Your task to perform on an android device: turn notification dots off Image 0: 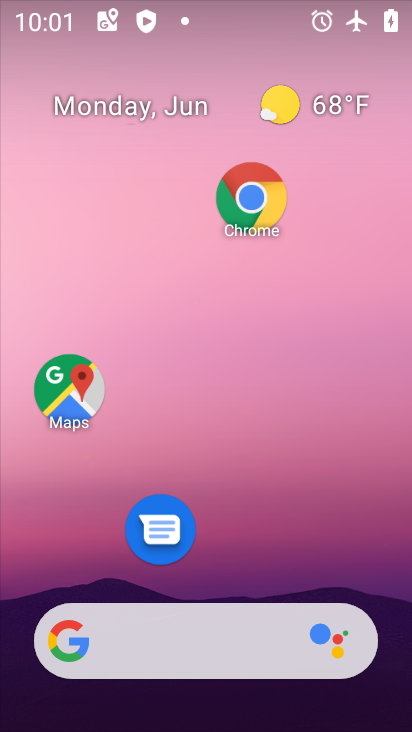
Step 0: drag from (215, 563) to (190, 135)
Your task to perform on an android device: turn notification dots off Image 1: 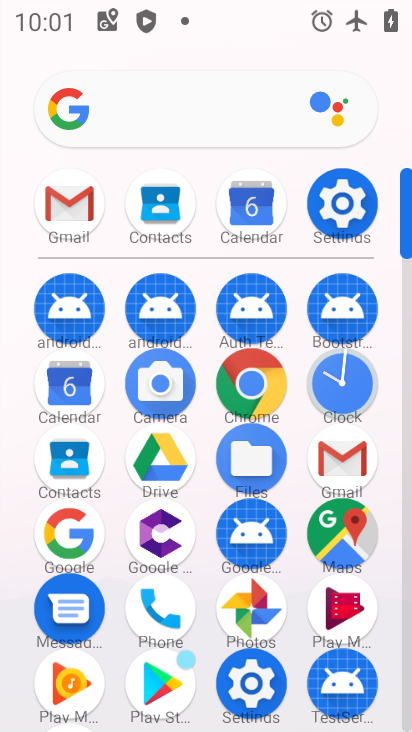
Step 1: click (330, 209)
Your task to perform on an android device: turn notification dots off Image 2: 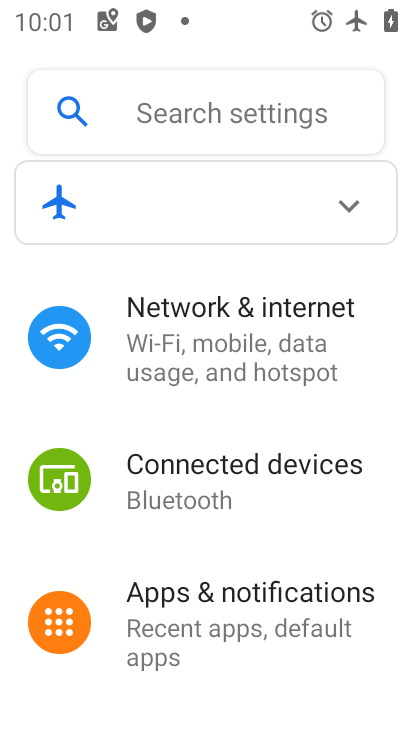
Step 2: click (222, 613)
Your task to perform on an android device: turn notification dots off Image 3: 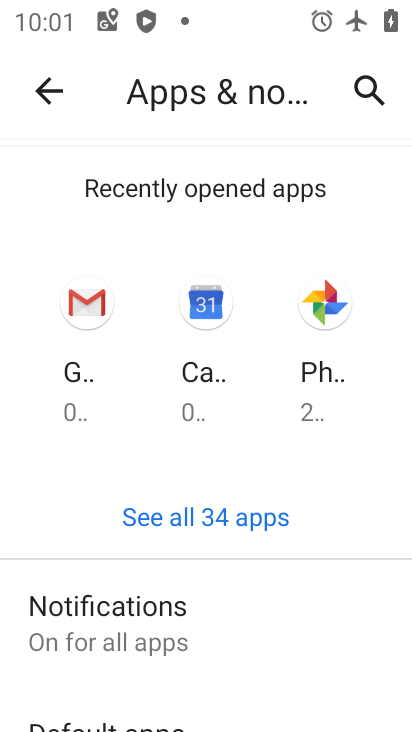
Step 3: click (169, 635)
Your task to perform on an android device: turn notification dots off Image 4: 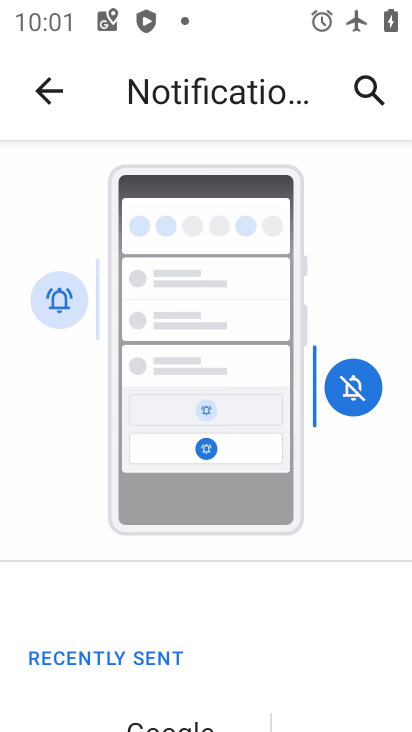
Step 4: drag from (235, 634) to (243, 253)
Your task to perform on an android device: turn notification dots off Image 5: 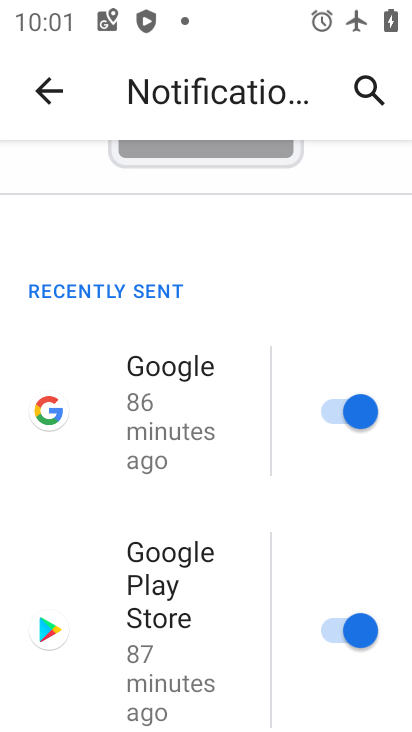
Step 5: drag from (270, 608) to (270, 223)
Your task to perform on an android device: turn notification dots off Image 6: 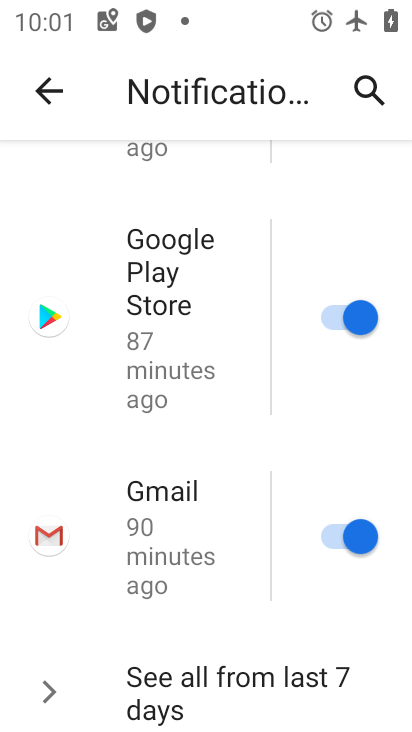
Step 6: drag from (233, 643) to (246, 324)
Your task to perform on an android device: turn notification dots off Image 7: 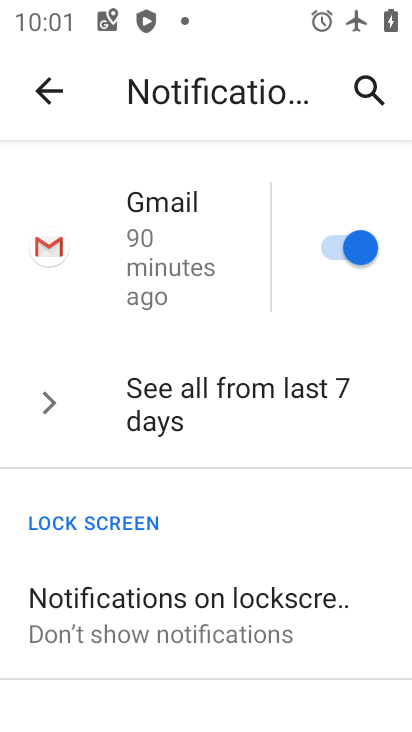
Step 7: drag from (194, 582) to (243, 250)
Your task to perform on an android device: turn notification dots off Image 8: 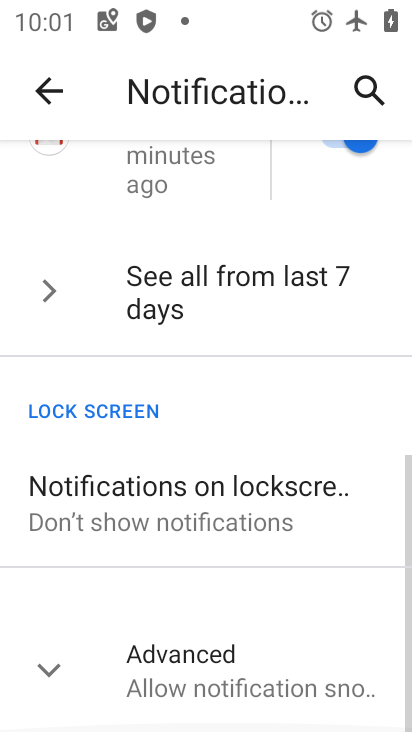
Step 8: drag from (242, 601) to (242, 385)
Your task to perform on an android device: turn notification dots off Image 9: 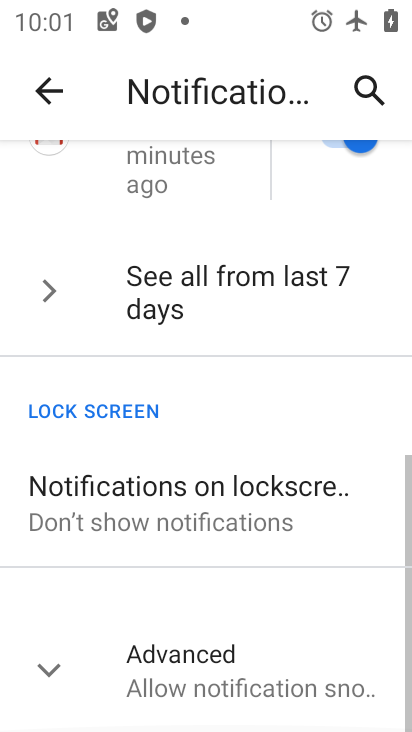
Step 9: click (189, 658)
Your task to perform on an android device: turn notification dots off Image 10: 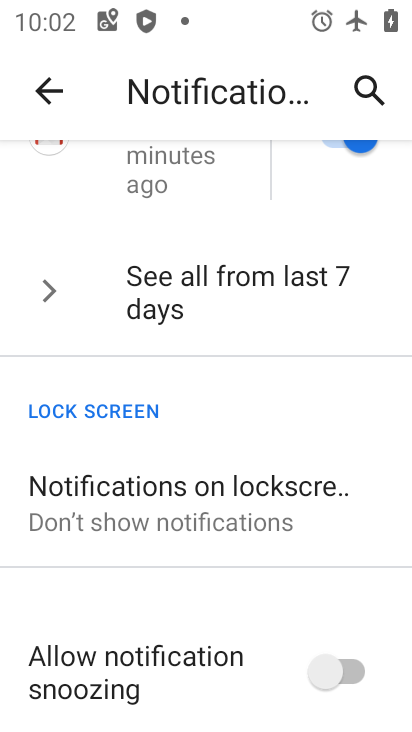
Step 10: drag from (220, 677) to (252, 327)
Your task to perform on an android device: turn notification dots off Image 11: 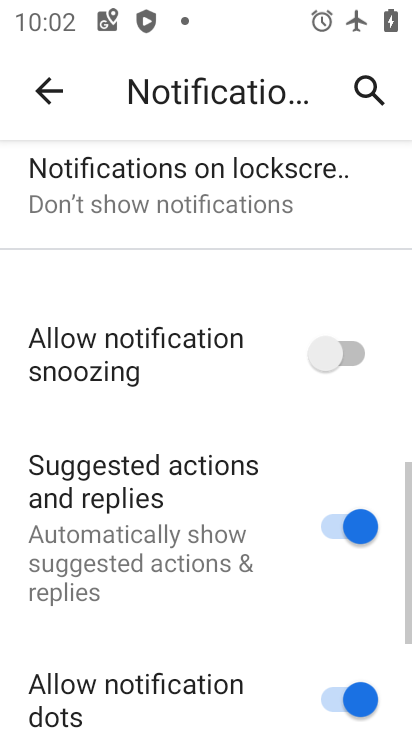
Step 11: drag from (249, 576) to (269, 285)
Your task to perform on an android device: turn notification dots off Image 12: 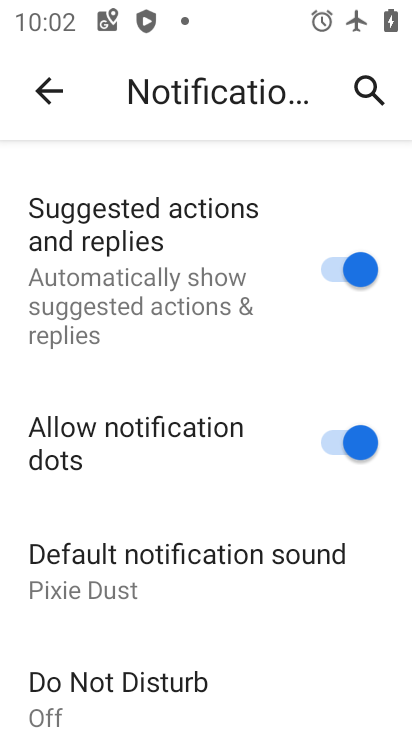
Step 12: click (332, 432)
Your task to perform on an android device: turn notification dots off Image 13: 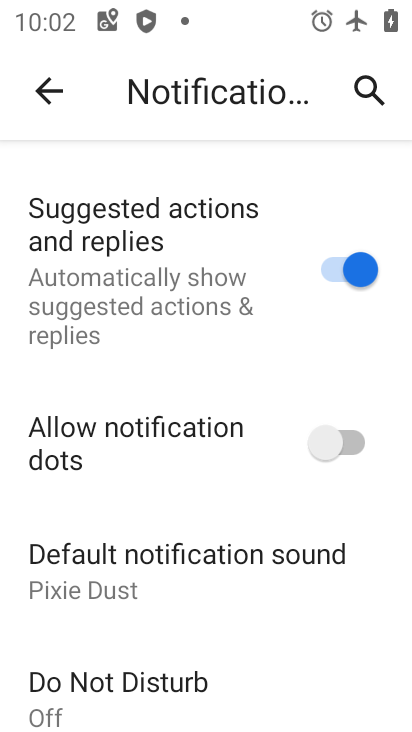
Step 13: task complete